Your task to perform on an android device: Open my contact list Image 0: 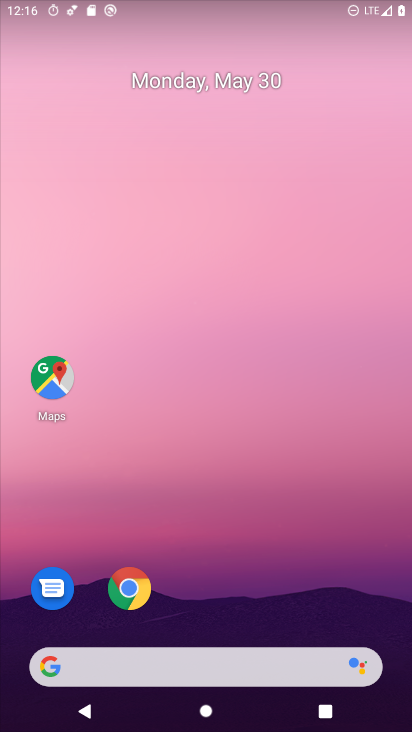
Step 0: drag from (226, 570) to (284, 98)
Your task to perform on an android device: Open my contact list Image 1: 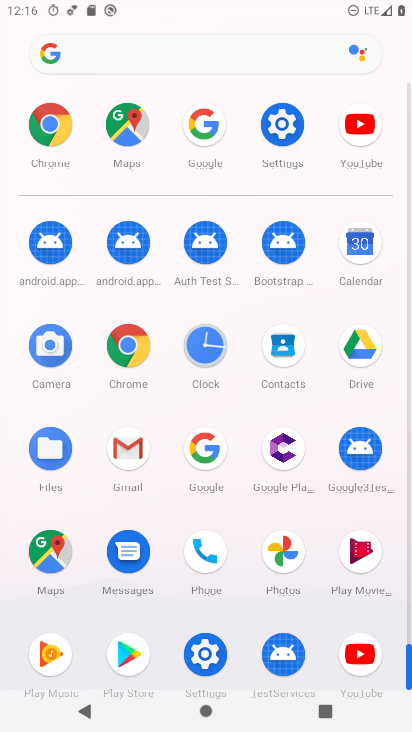
Step 1: click (280, 365)
Your task to perform on an android device: Open my contact list Image 2: 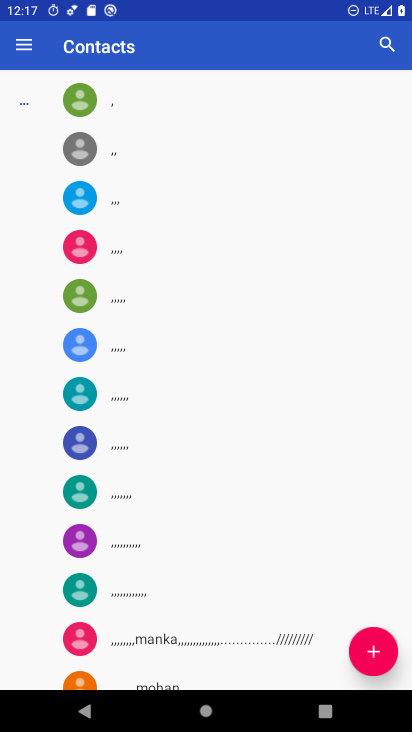
Step 2: task complete